Your task to perform on an android device: What's on Reddit today Image 0: 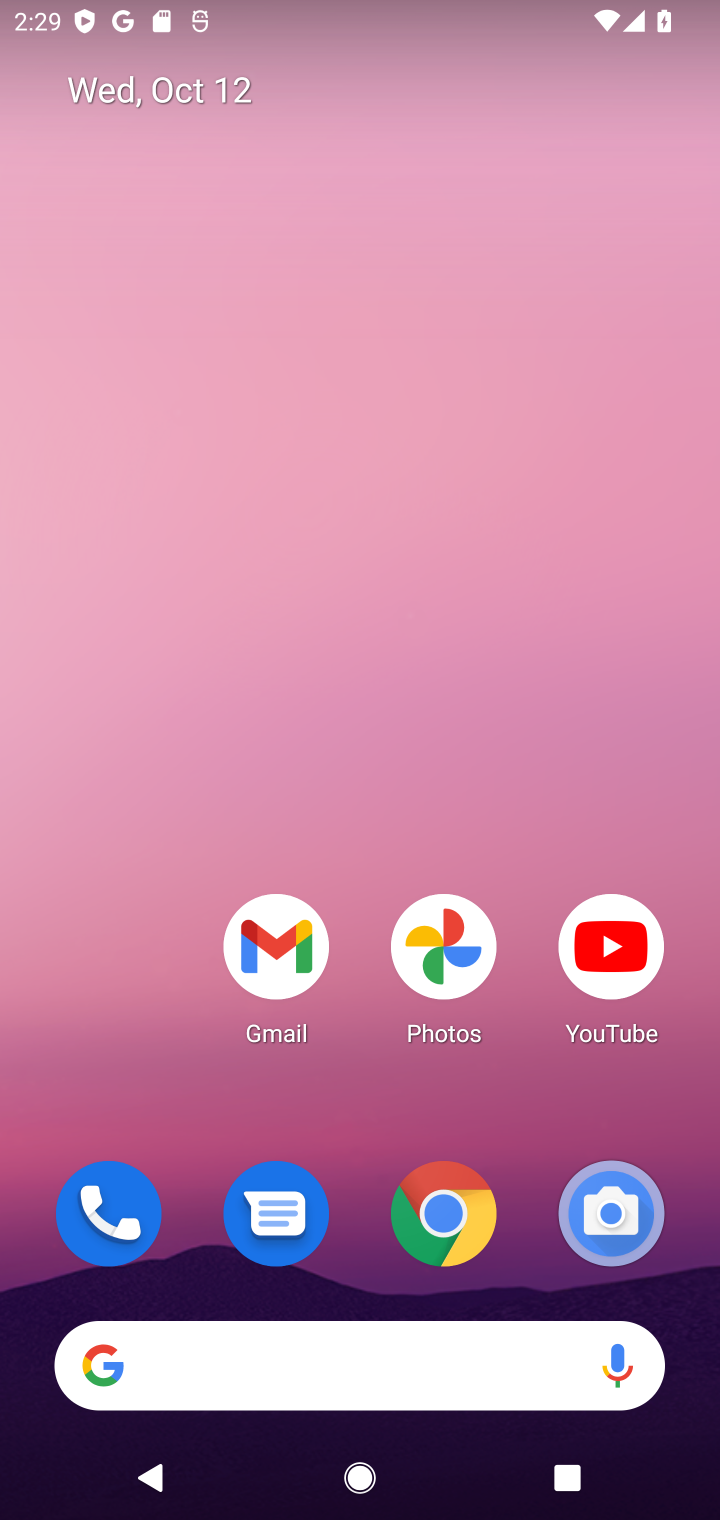
Step 0: click (330, 1370)
Your task to perform on an android device: What's on Reddit today Image 1: 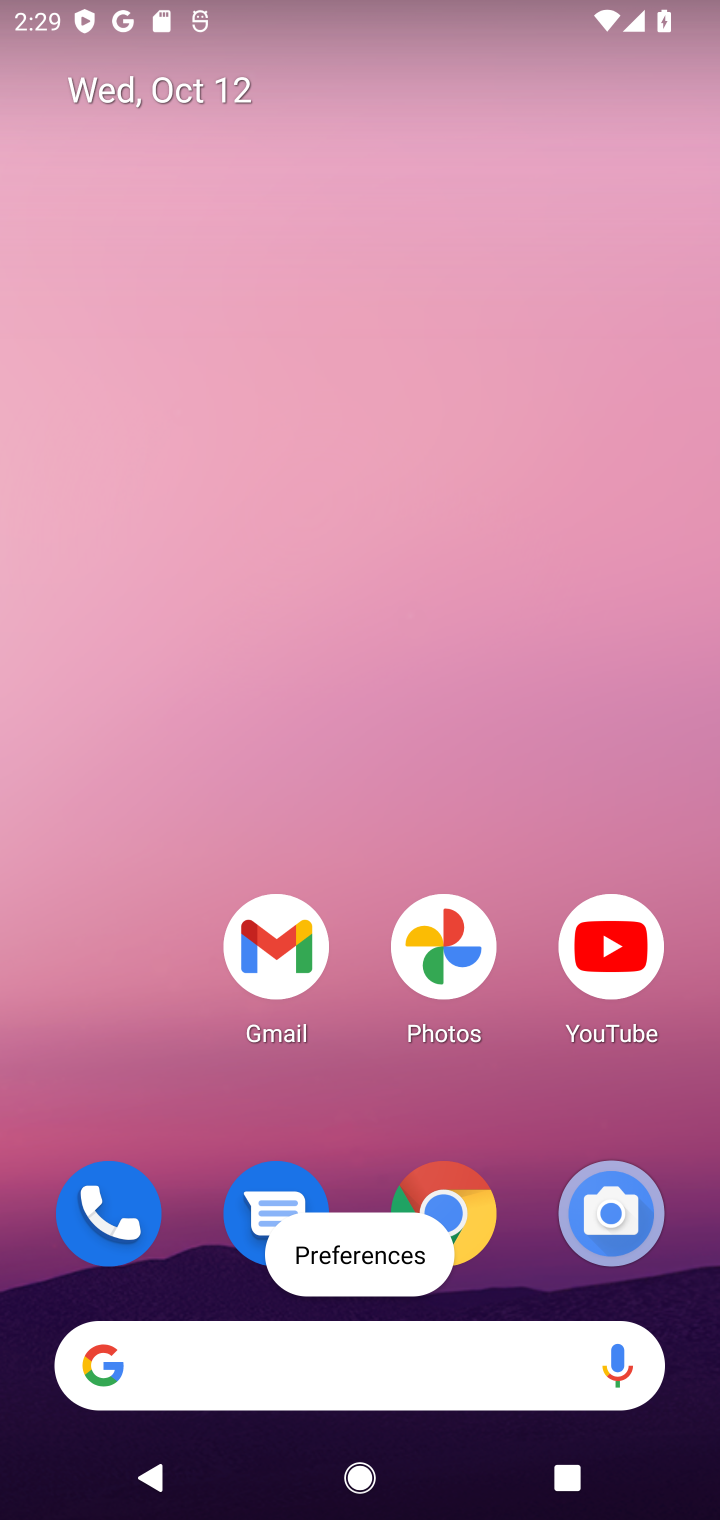
Step 1: click (307, 1389)
Your task to perform on an android device: What's on Reddit today Image 2: 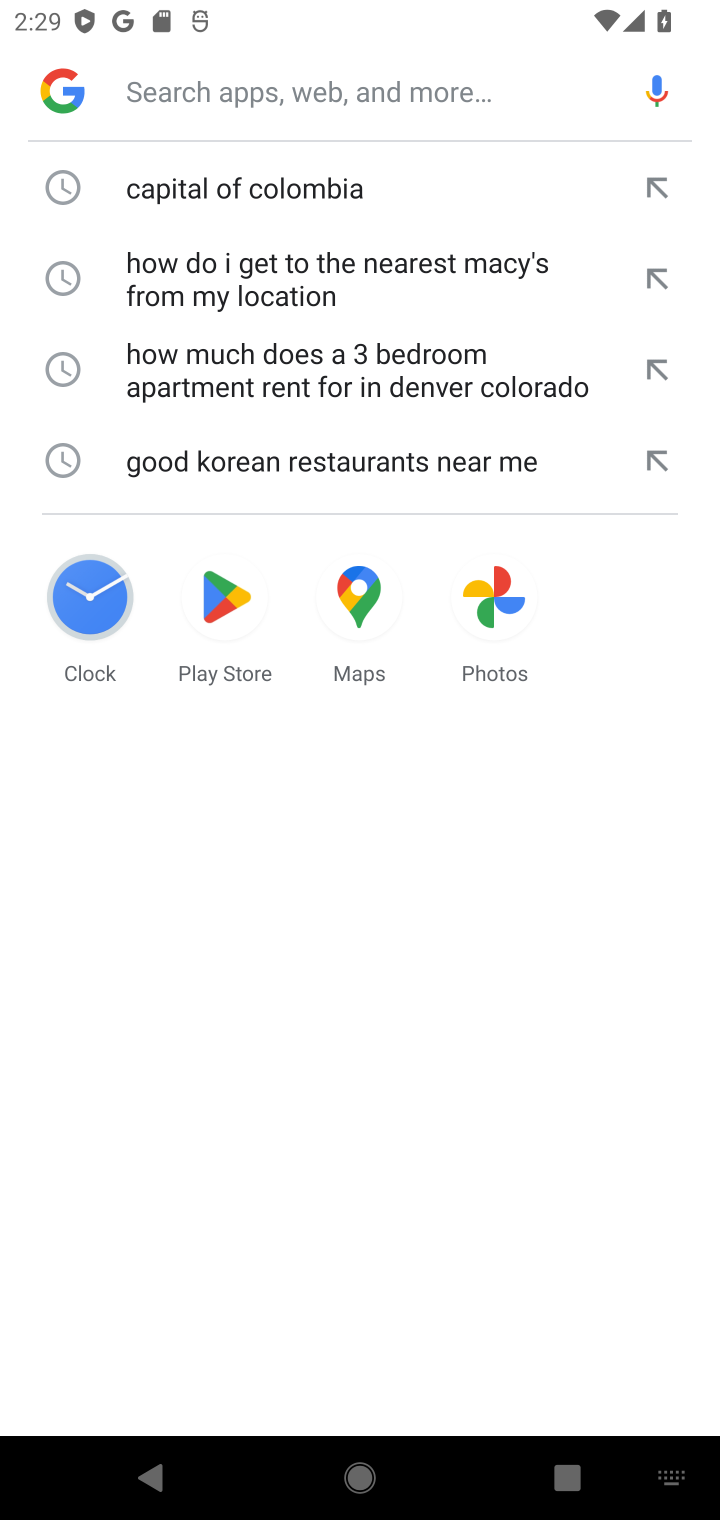
Step 2: click (207, 104)
Your task to perform on an android device: What's on Reddit today Image 3: 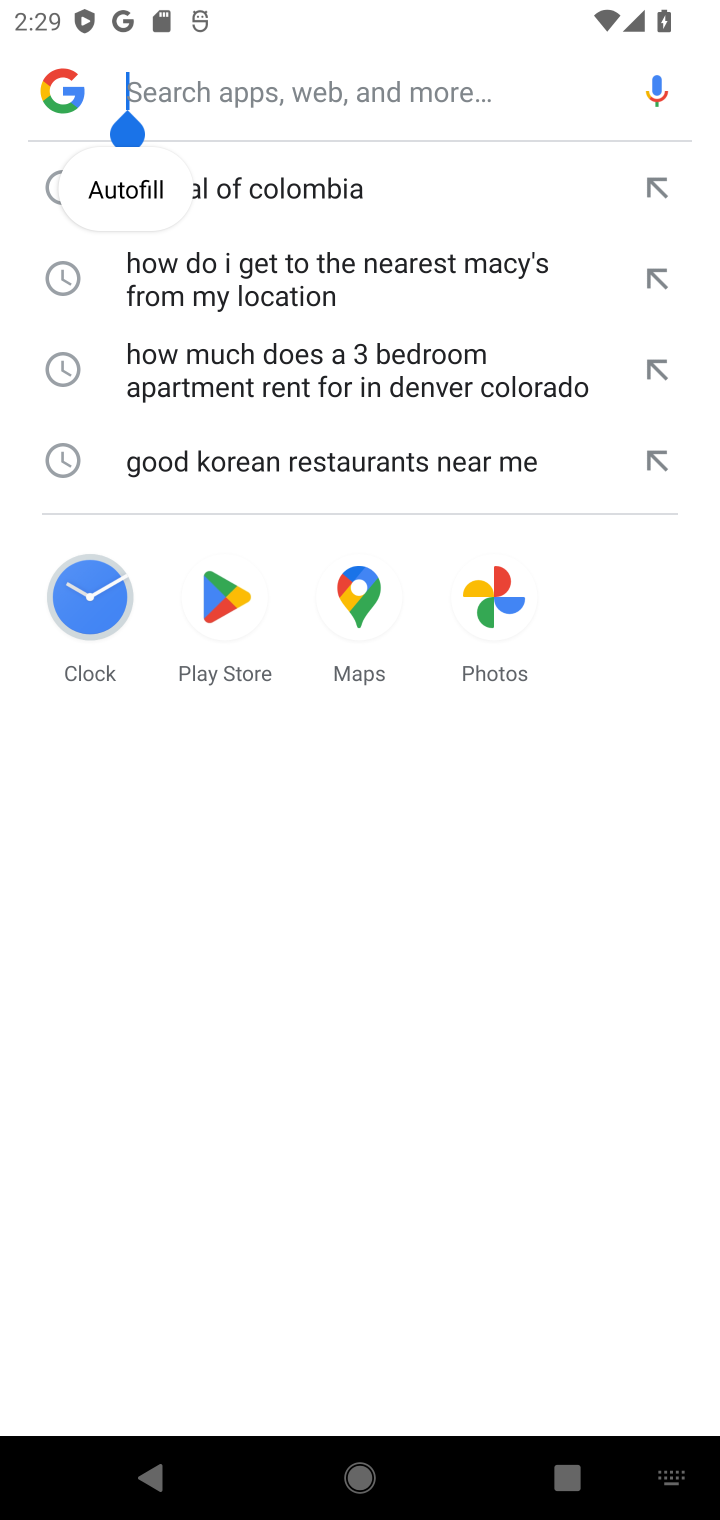
Step 3: type "Reddit today"
Your task to perform on an android device: What's on Reddit today Image 4: 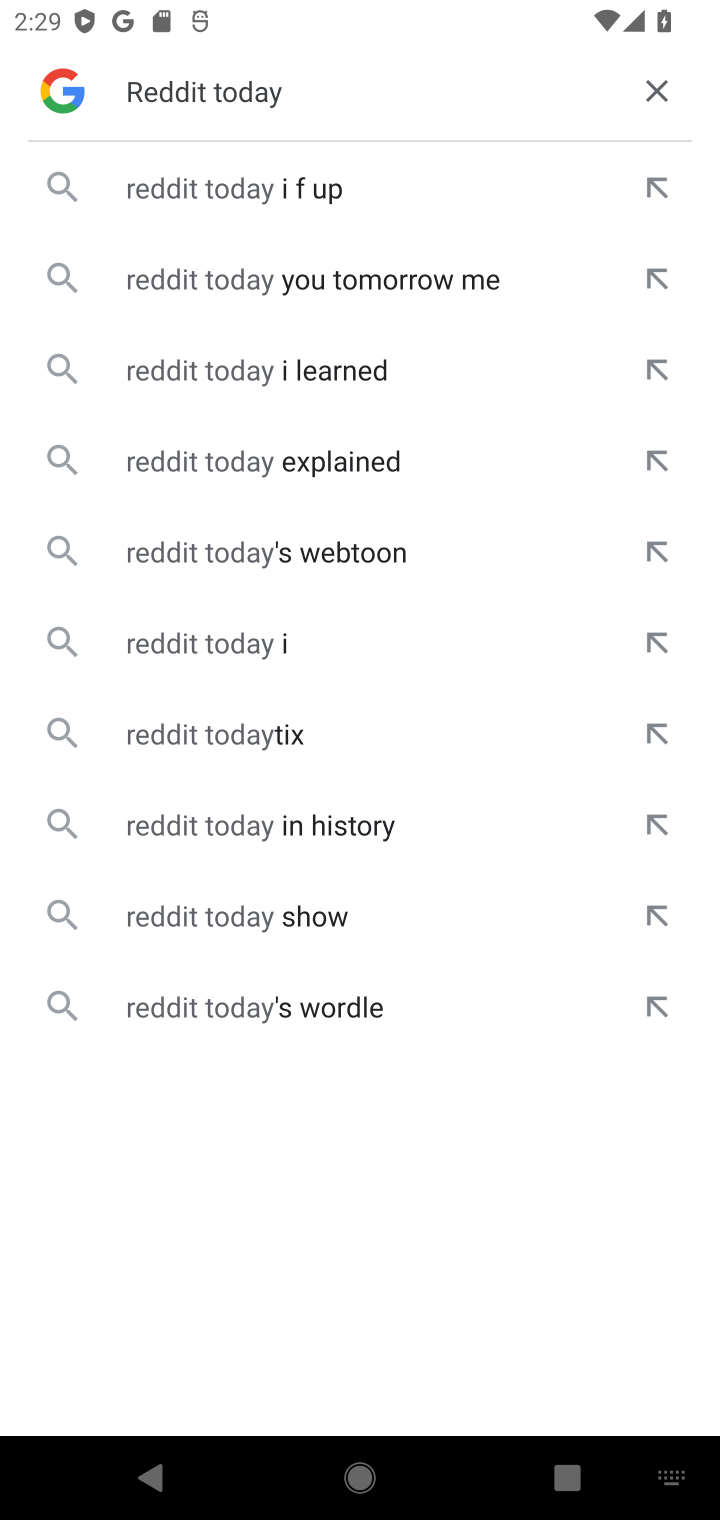
Step 4: click (278, 624)
Your task to perform on an android device: What's on Reddit today Image 5: 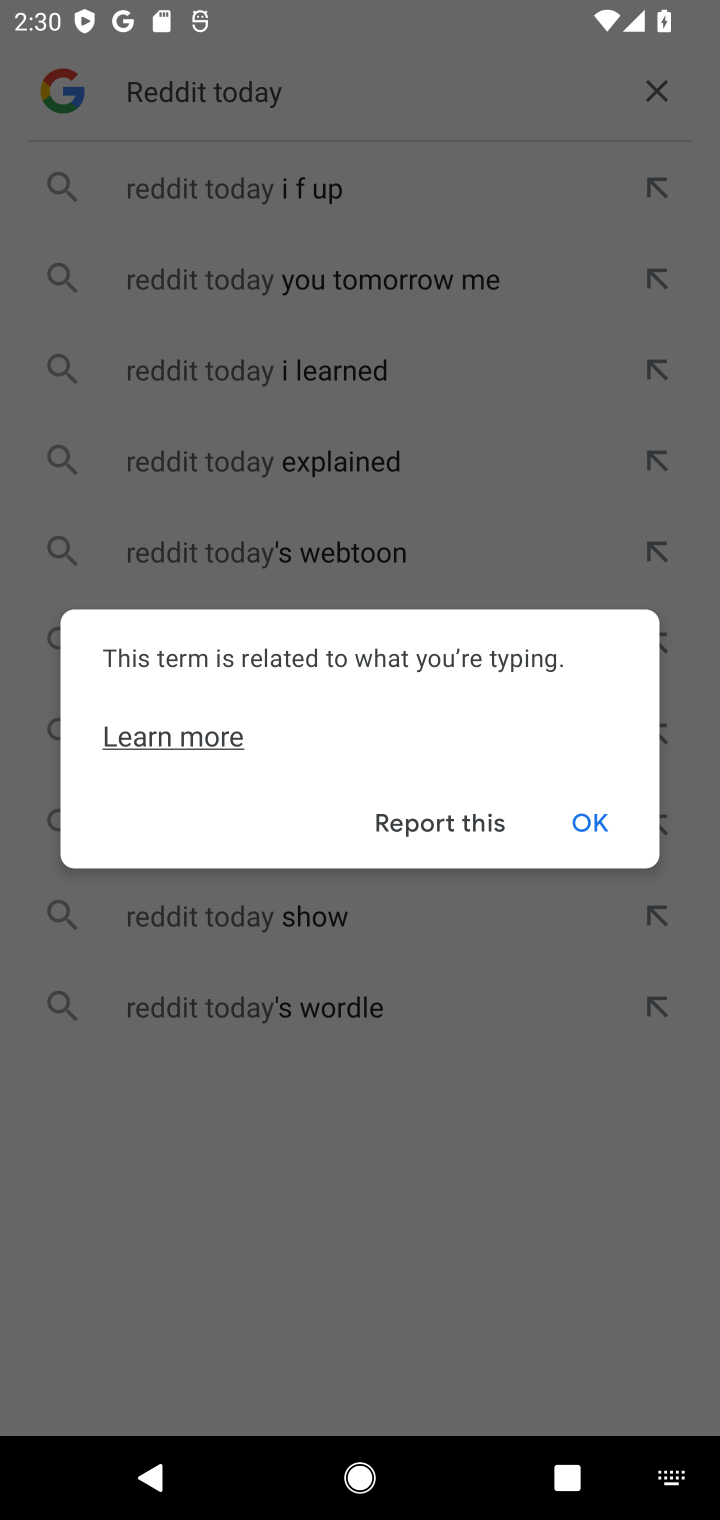
Step 5: click (597, 832)
Your task to perform on an android device: What's on Reddit today Image 6: 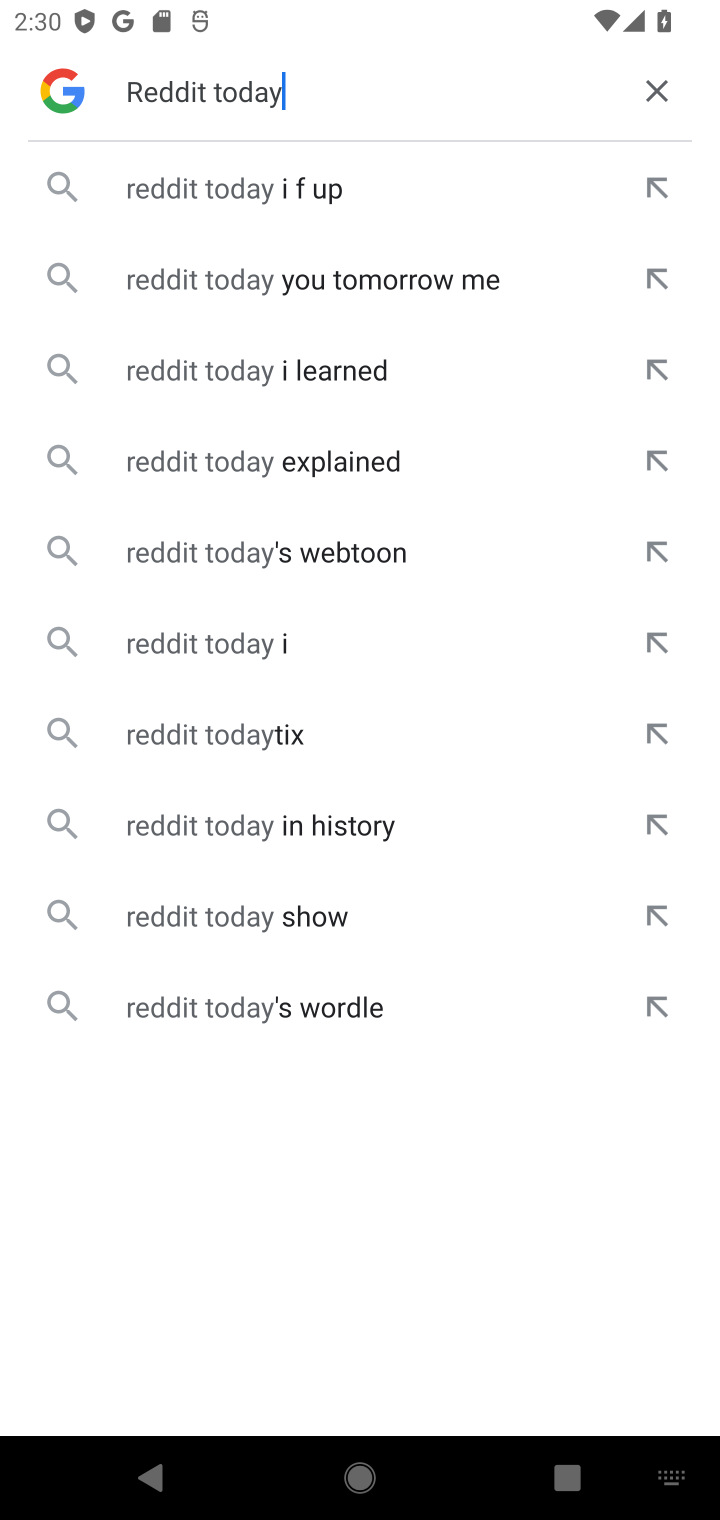
Step 6: click (233, 648)
Your task to perform on an android device: What's on Reddit today Image 7: 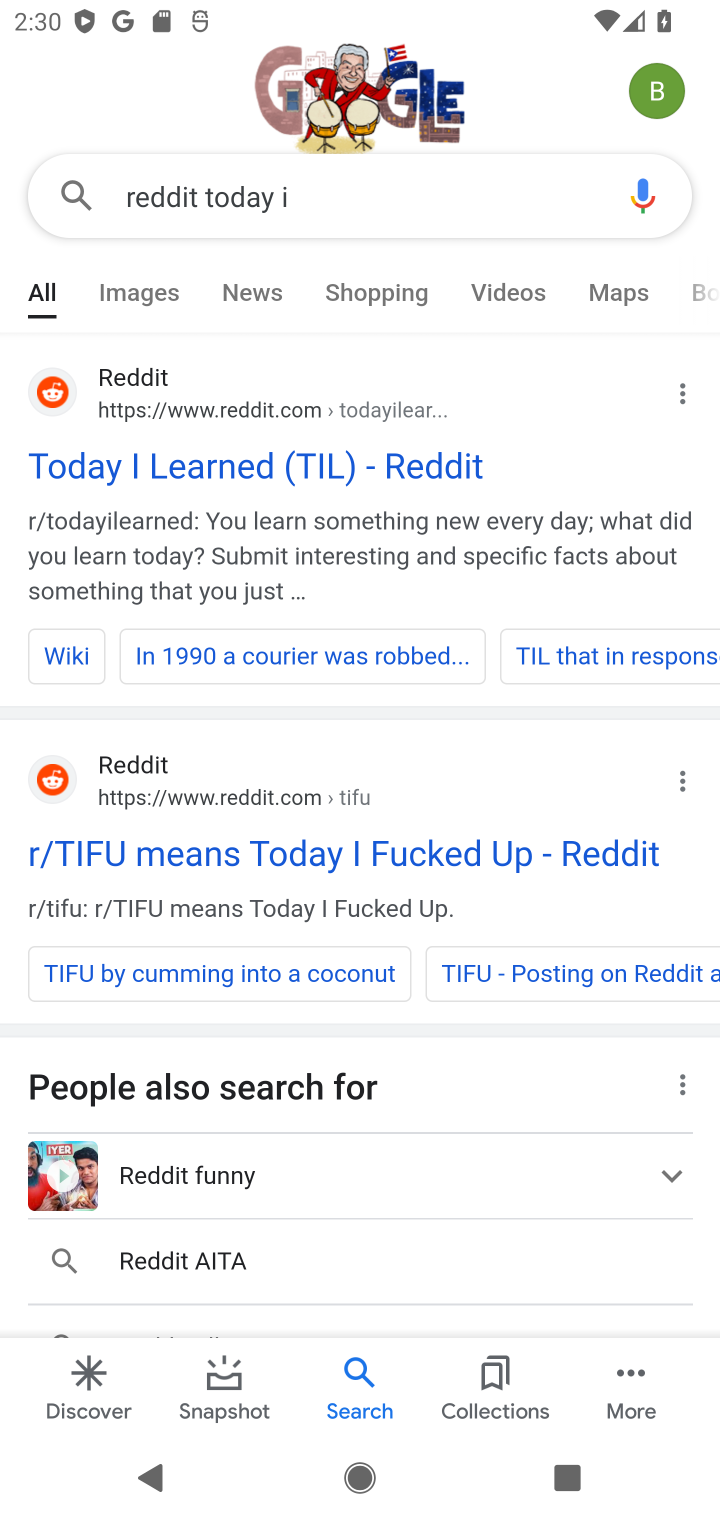
Step 7: click (196, 474)
Your task to perform on an android device: What's on Reddit today Image 8: 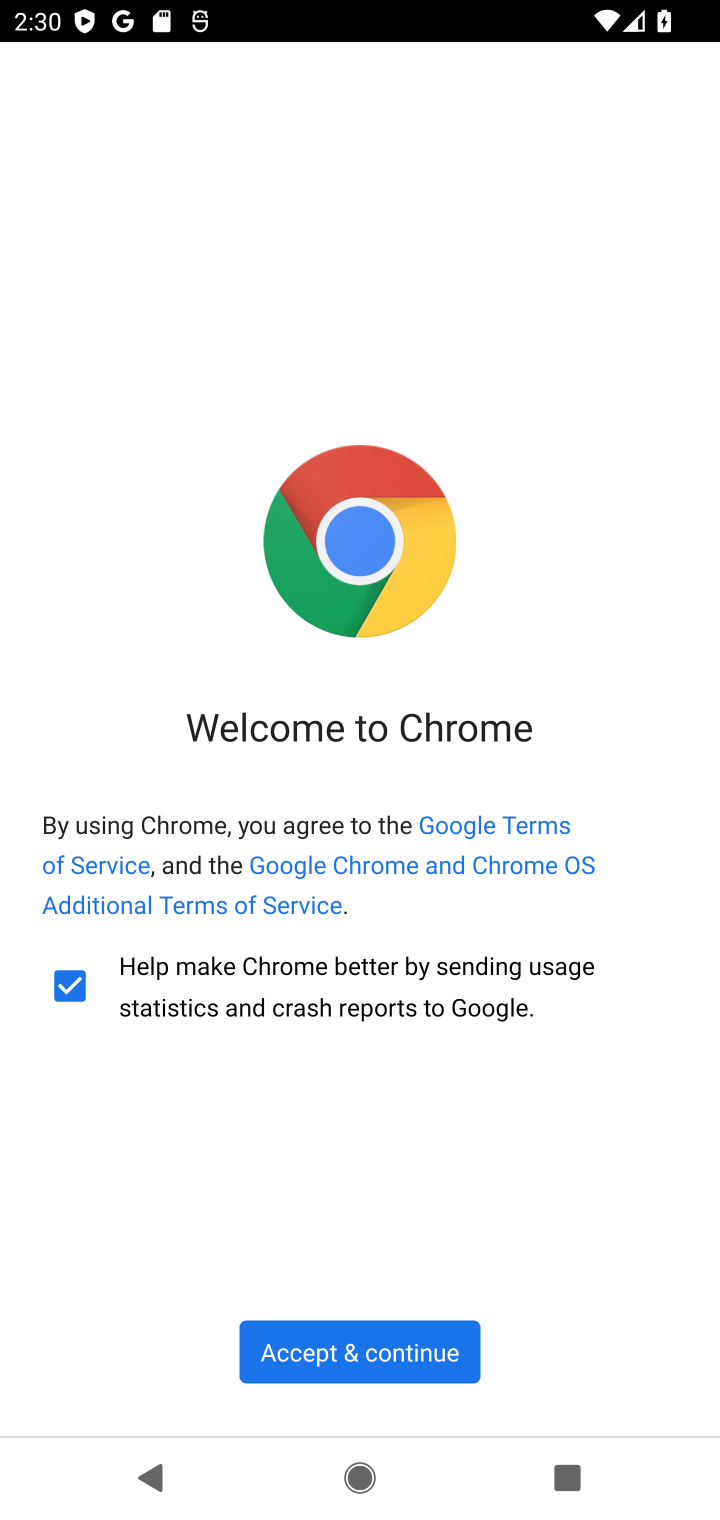
Step 8: click (267, 1348)
Your task to perform on an android device: What's on Reddit today Image 9: 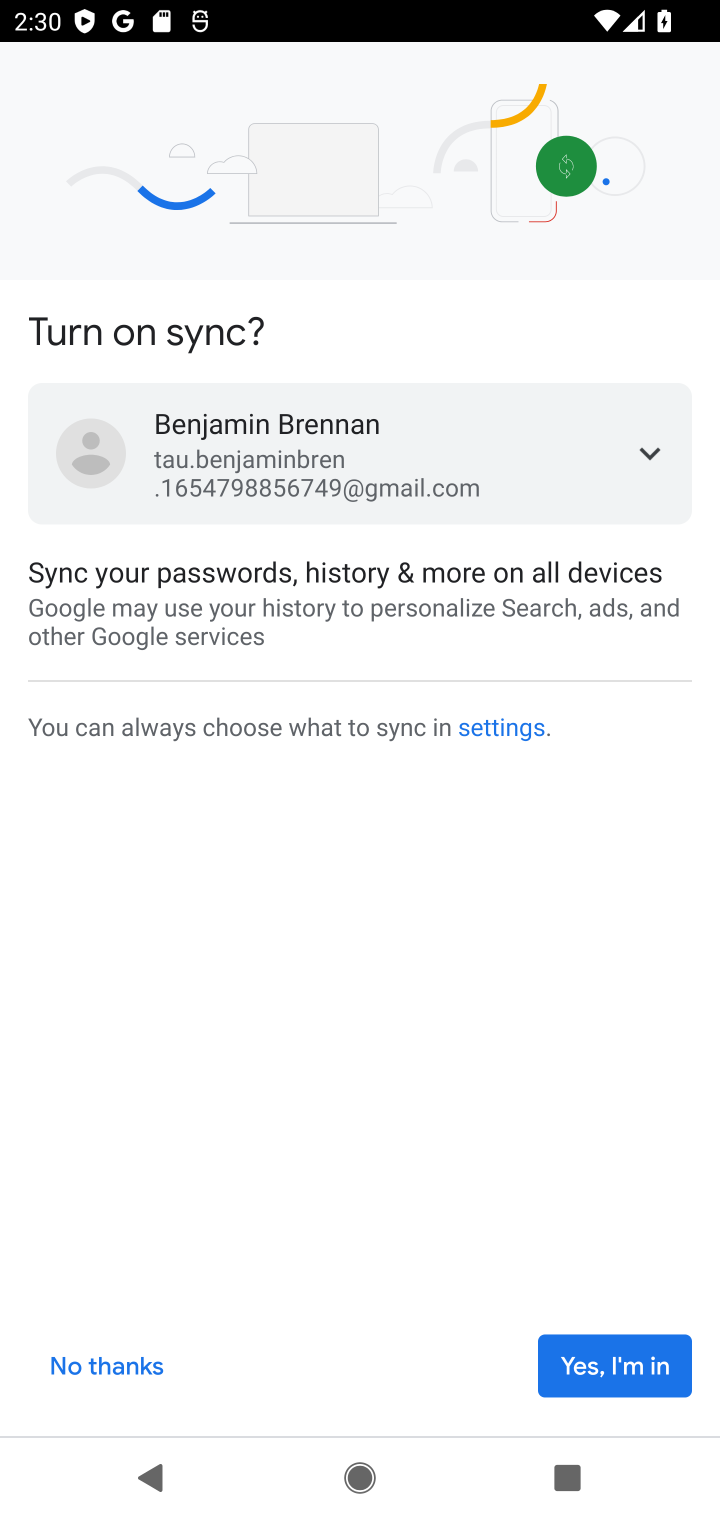
Step 9: click (577, 1363)
Your task to perform on an android device: What's on Reddit today Image 10: 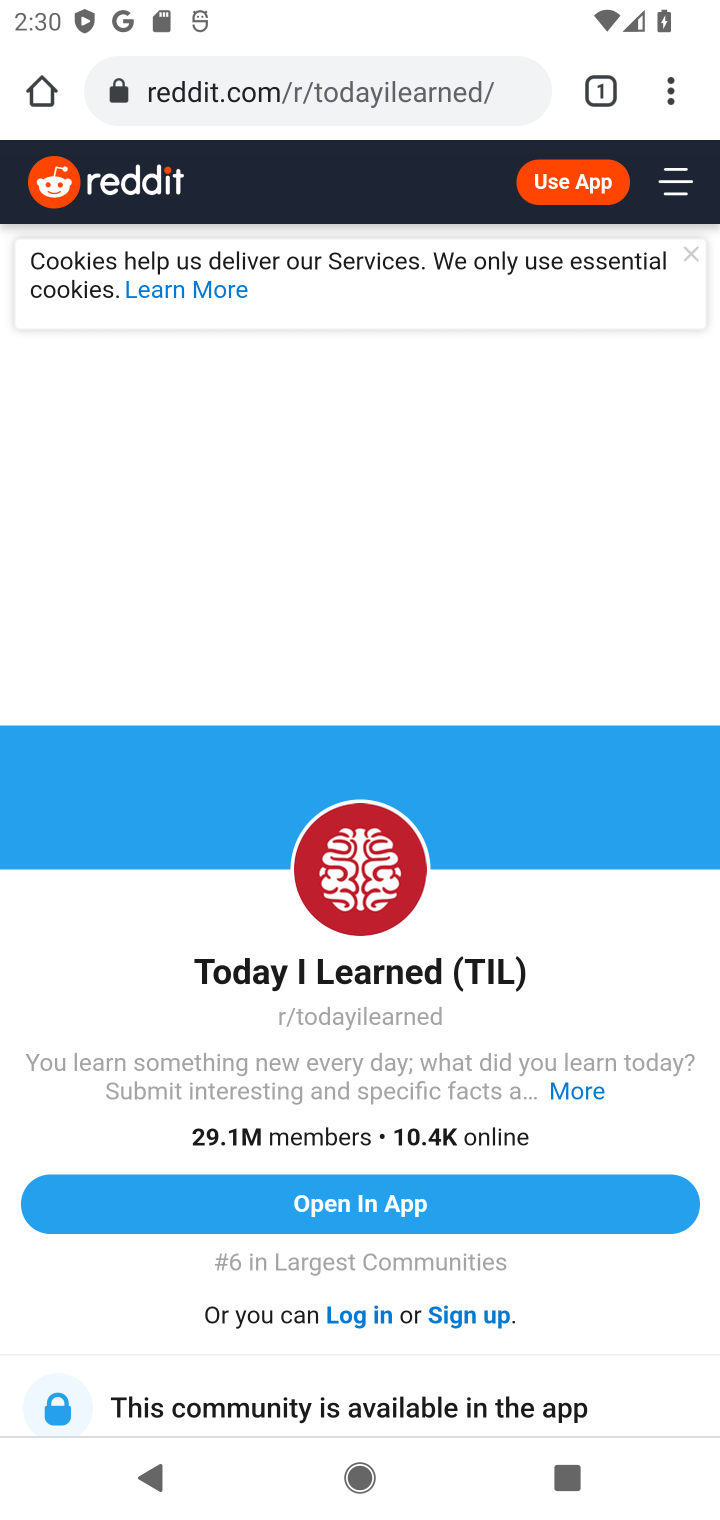
Step 10: task complete